Your task to perform on an android device: Go to Amazon Image 0: 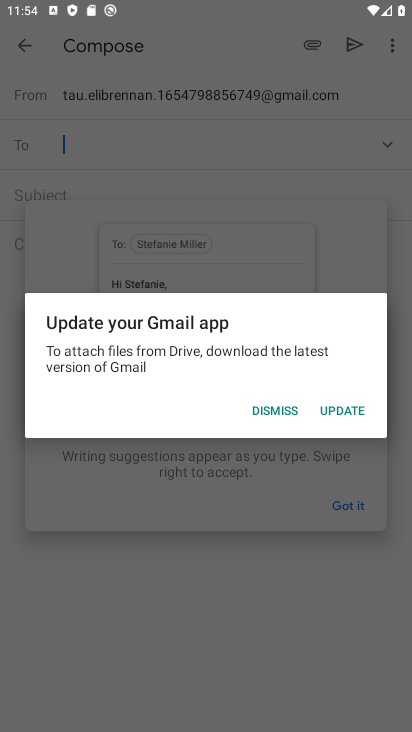
Step 0: press home button
Your task to perform on an android device: Go to Amazon Image 1: 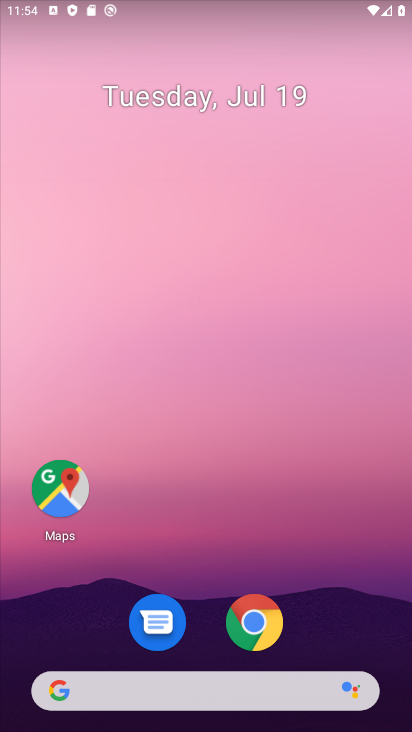
Step 1: click (255, 602)
Your task to perform on an android device: Go to Amazon Image 2: 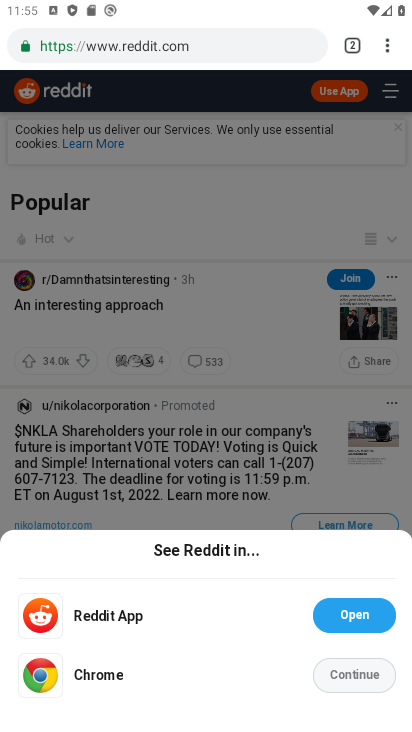
Step 2: click (346, 45)
Your task to perform on an android device: Go to Amazon Image 3: 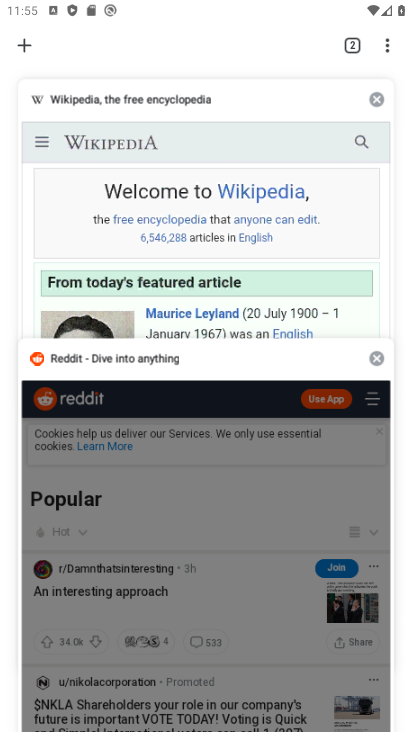
Step 3: click (34, 51)
Your task to perform on an android device: Go to Amazon Image 4: 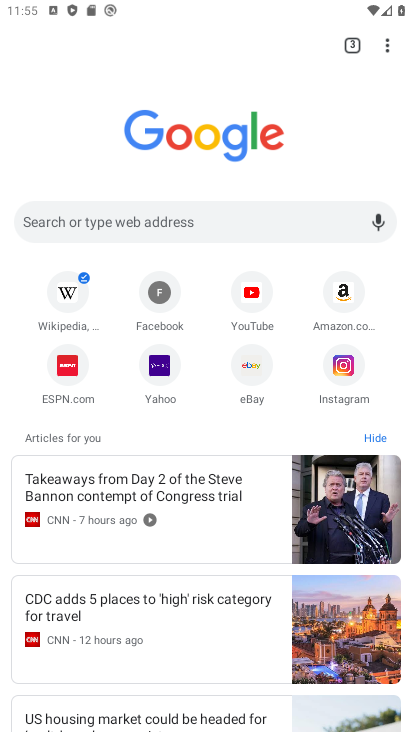
Step 4: click (335, 291)
Your task to perform on an android device: Go to Amazon Image 5: 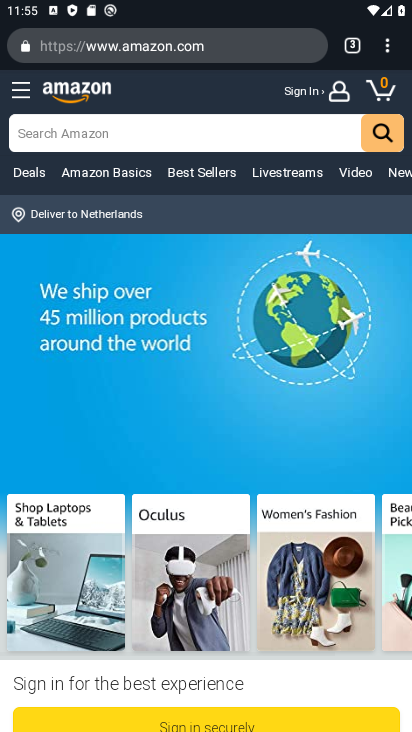
Step 5: task complete